Your task to perform on an android device: change the clock display to analog Image 0: 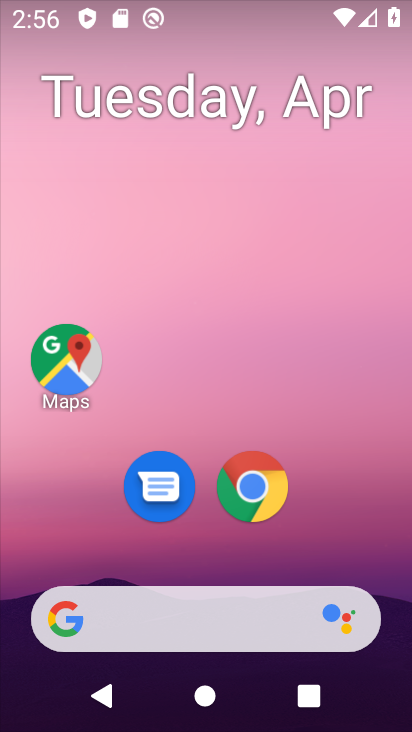
Step 0: drag from (188, 560) to (249, 220)
Your task to perform on an android device: change the clock display to analog Image 1: 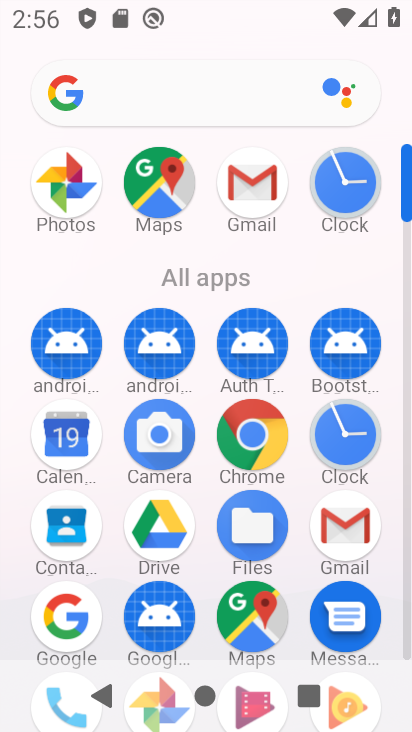
Step 1: drag from (236, 579) to (245, 278)
Your task to perform on an android device: change the clock display to analog Image 2: 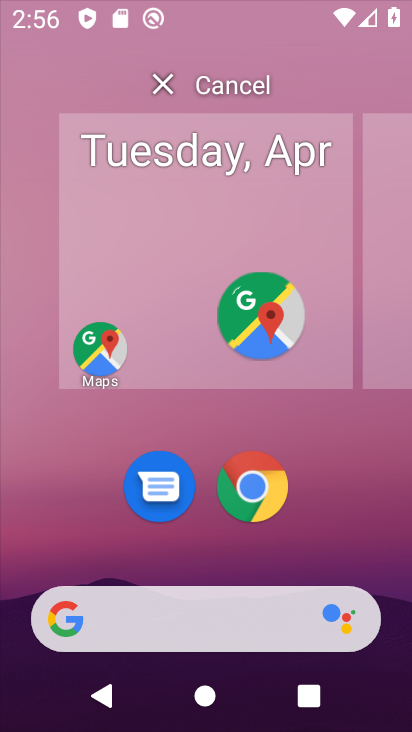
Step 2: click (329, 438)
Your task to perform on an android device: change the clock display to analog Image 3: 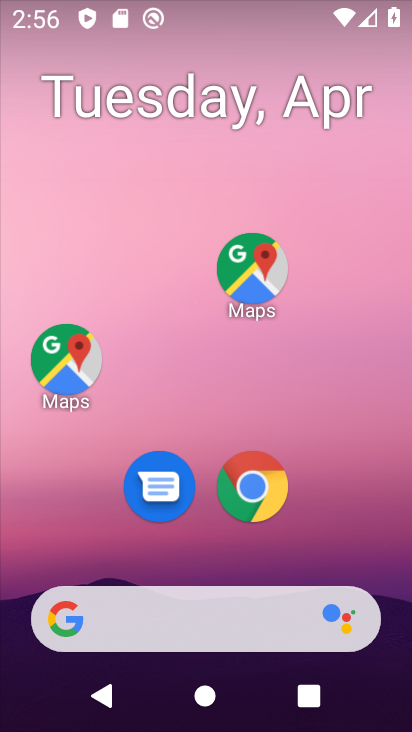
Step 3: drag from (240, 608) to (211, 265)
Your task to perform on an android device: change the clock display to analog Image 4: 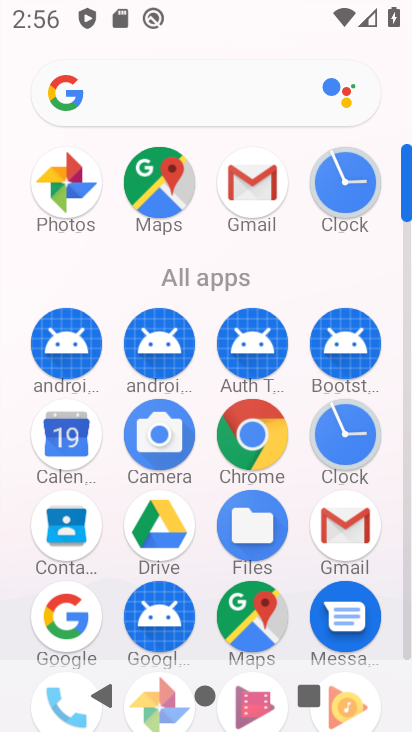
Step 4: click (344, 446)
Your task to perform on an android device: change the clock display to analog Image 5: 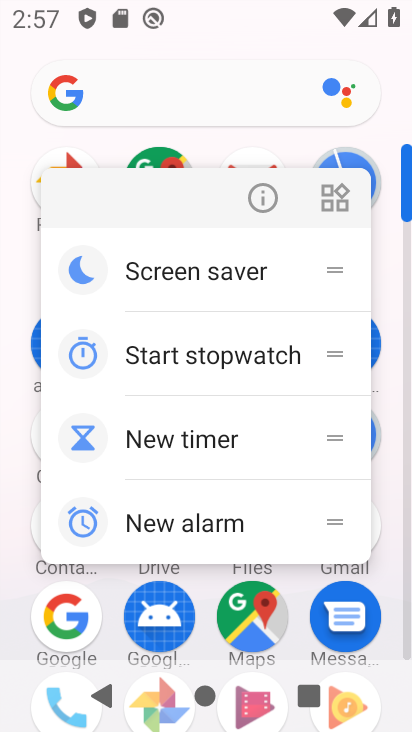
Step 5: click (257, 206)
Your task to perform on an android device: change the clock display to analog Image 6: 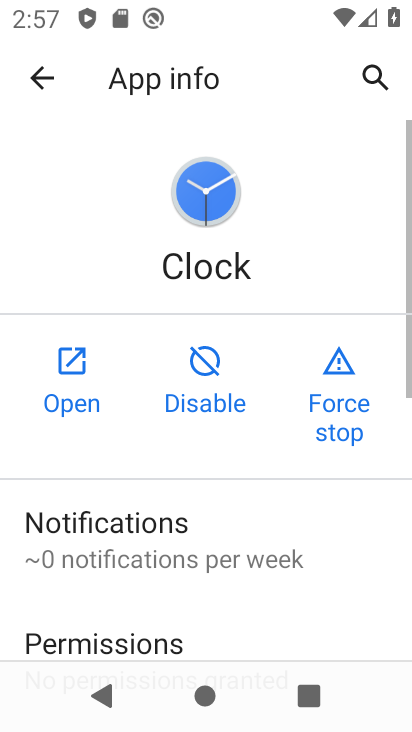
Step 6: click (82, 379)
Your task to perform on an android device: change the clock display to analog Image 7: 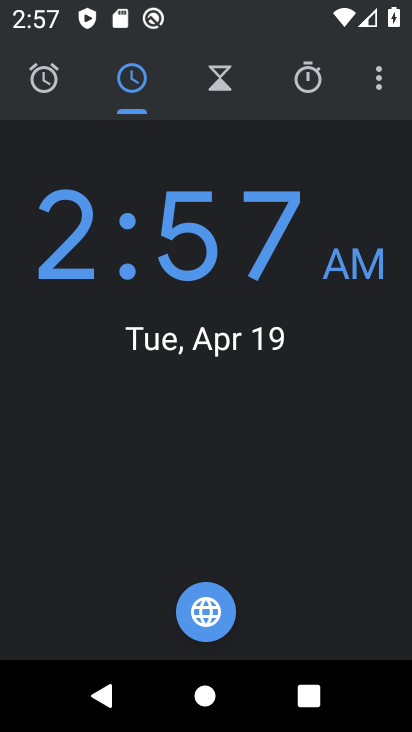
Step 7: click (374, 95)
Your task to perform on an android device: change the clock display to analog Image 8: 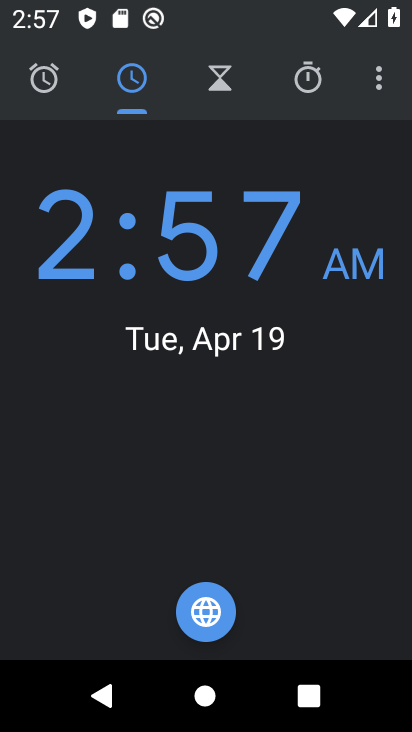
Step 8: click (383, 83)
Your task to perform on an android device: change the clock display to analog Image 9: 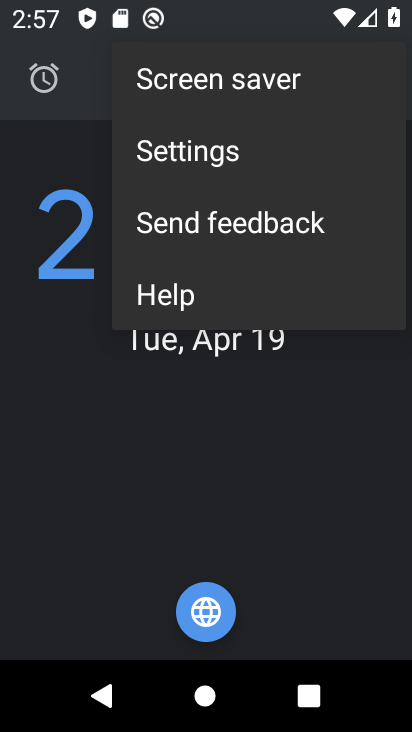
Step 9: click (285, 160)
Your task to perform on an android device: change the clock display to analog Image 10: 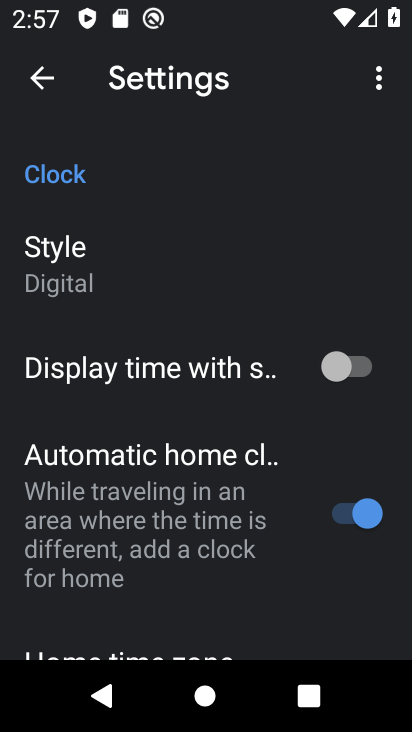
Step 10: click (188, 306)
Your task to perform on an android device: change the clock display to analog Image 11: 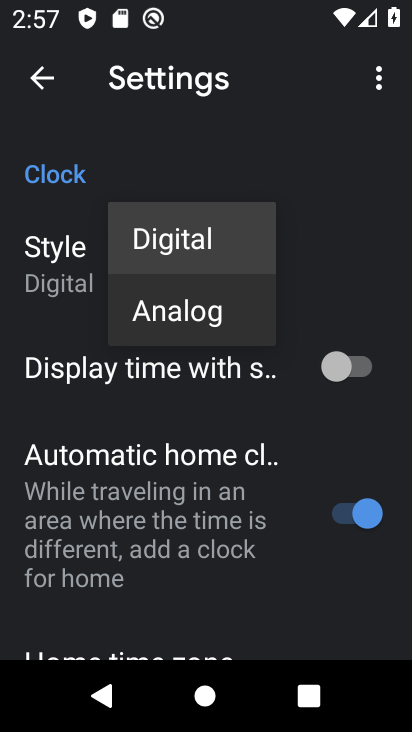
Step 11: click (210, 316)
Your task to perform on an android device: change the clock display to analog Image 12: 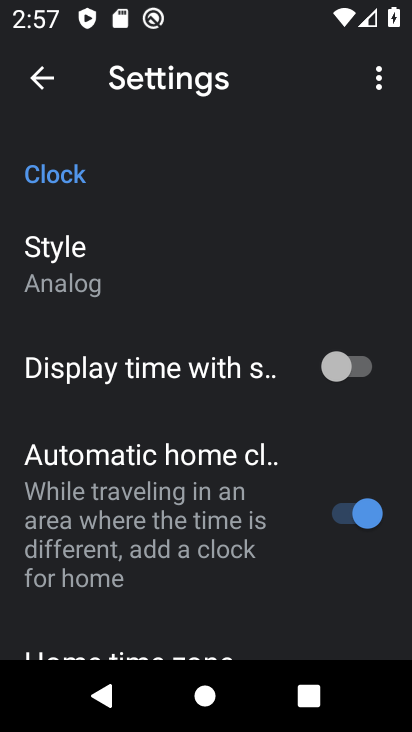
Step 12: task complete